Your task to perform on an android device: Search for the best rated 4k tvs on Walmart. Image 0: 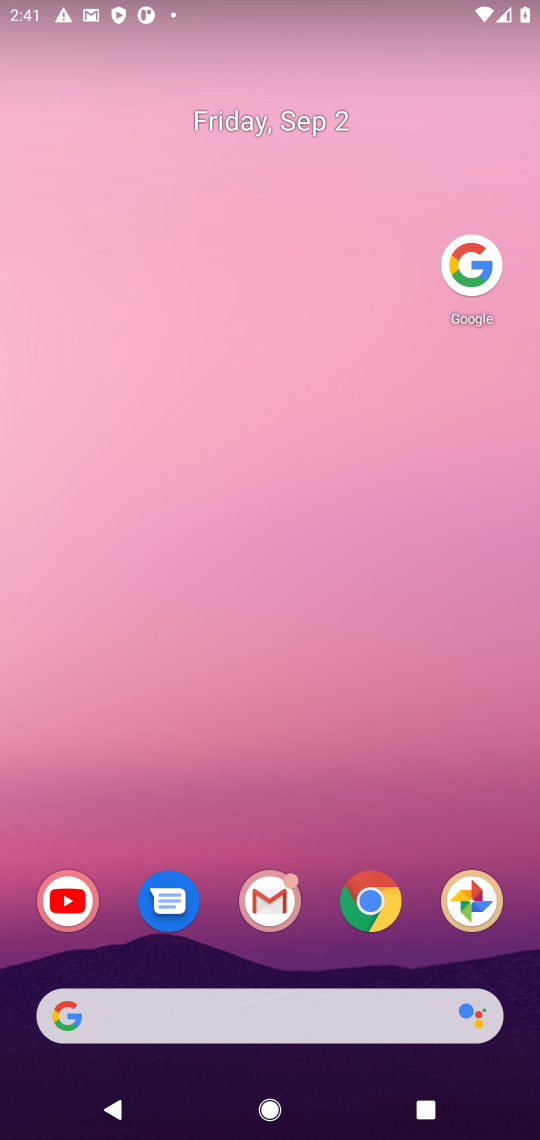
Step 0: drag from (195, 487) to (195, 340)
Your task to perform on an android device: Search for the best rated 4k tvs on Walmart. Image 1: 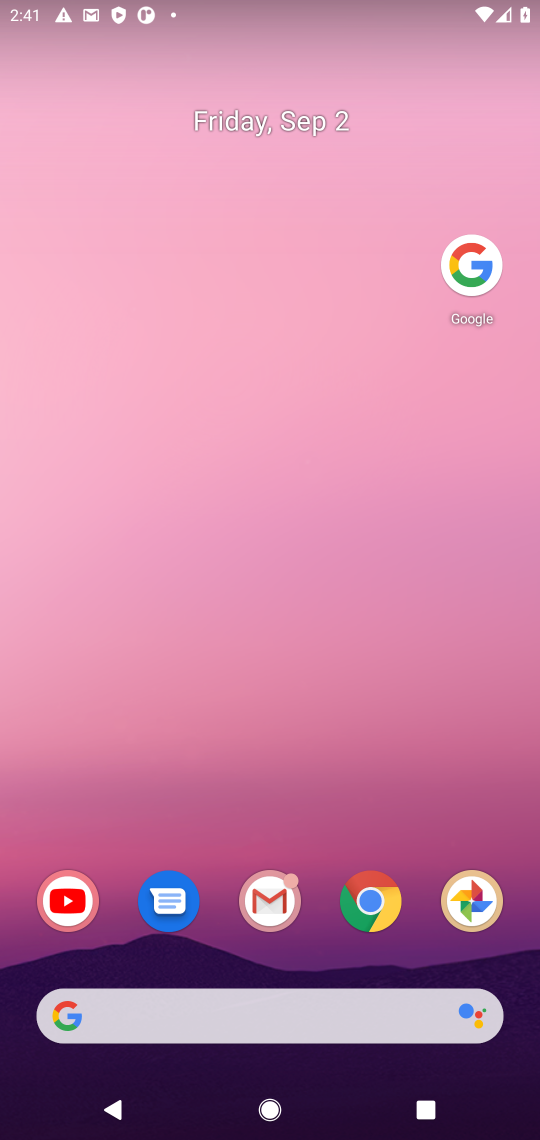
Step 1: click (481, 248)
Your task to perform on an android device: Search for the best rated 4k tvs on Walmart. Image 2: 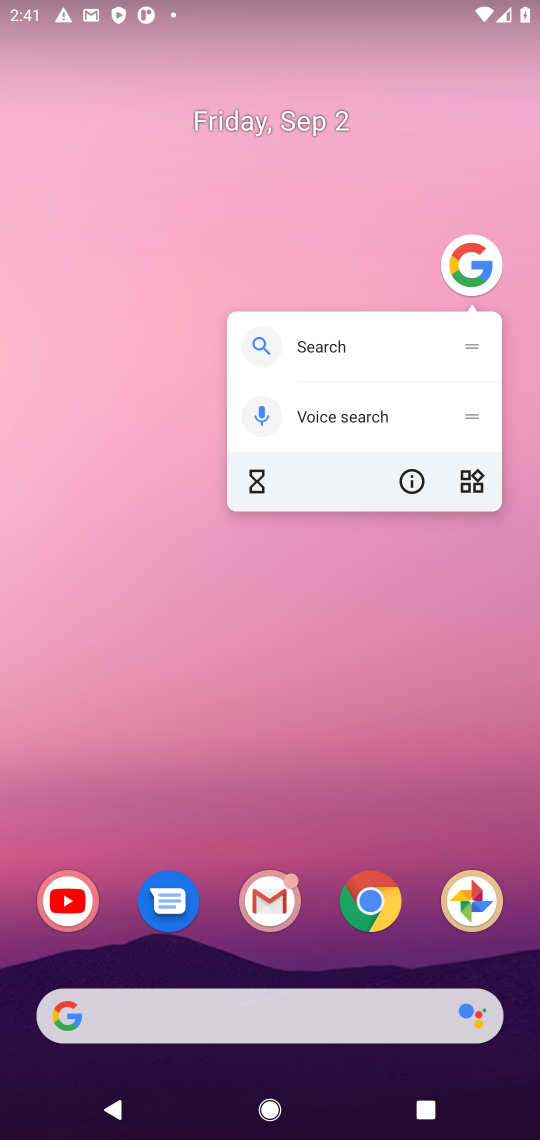
Step 2: click (469, 268)
Your task to perform on an android device: Search for the best rated 4k tvs on Walmart. Image 3: 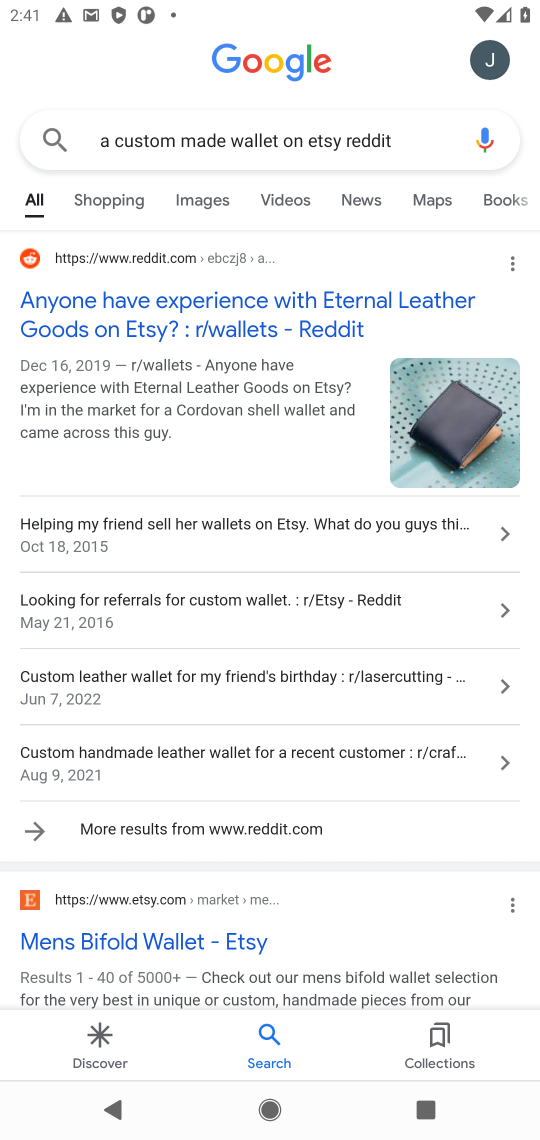
Step 3: click (435, 138)
Your task to perform on an android device: Search for the best rated 4k tvs on Walmart. Image 4: 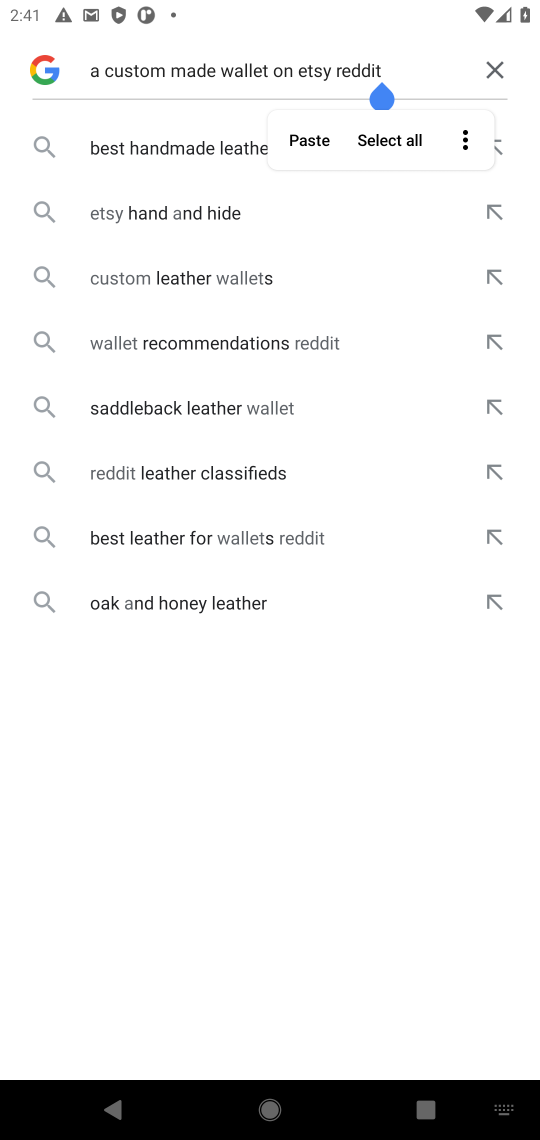
Step 4: click (483, 65)
Your task to perform on an android device: Search for the best rated 4k tvs on Walmart. Image 5: 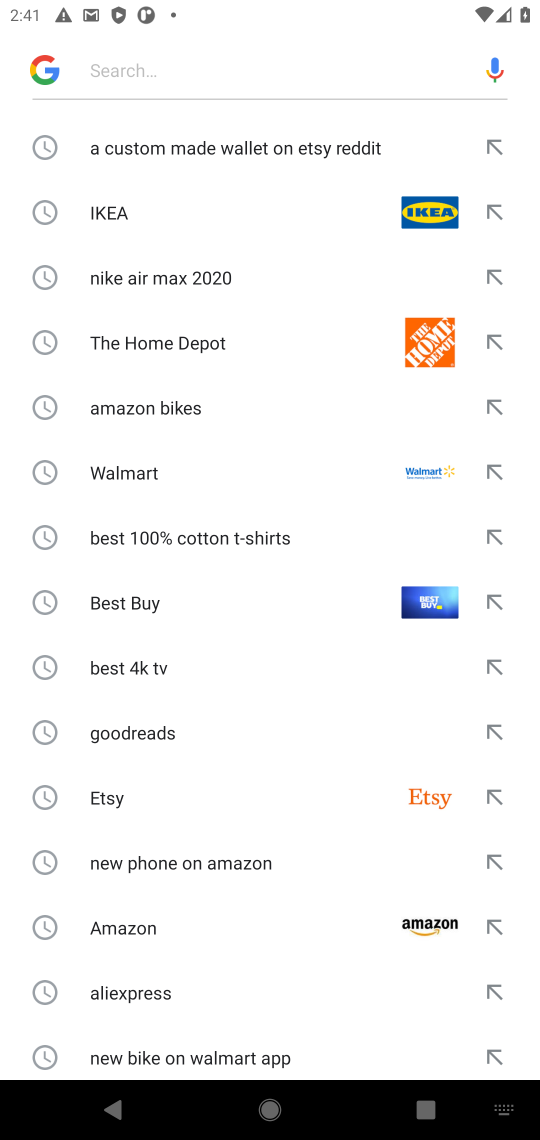
Step 5: click (174, 45)
Your task to perform on an android device: Search for the best rated 4k tvs on Walmart. Image 6: 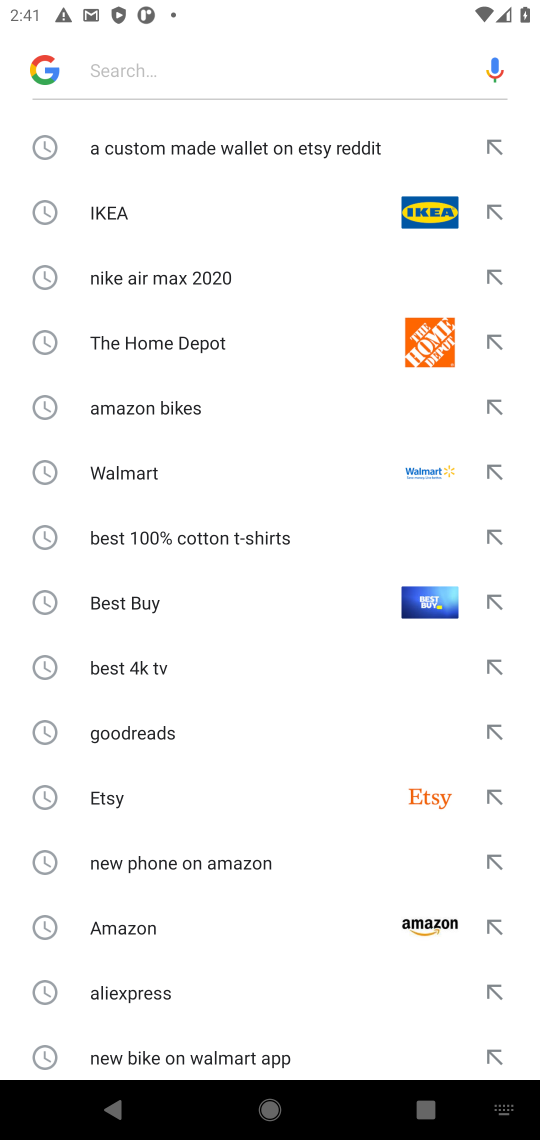
Step 6: type "the best rated 4k tvs on Walmart"
Your task to perform on an android device: Search for the best rated 4k tvs on Walmart. Image 7: 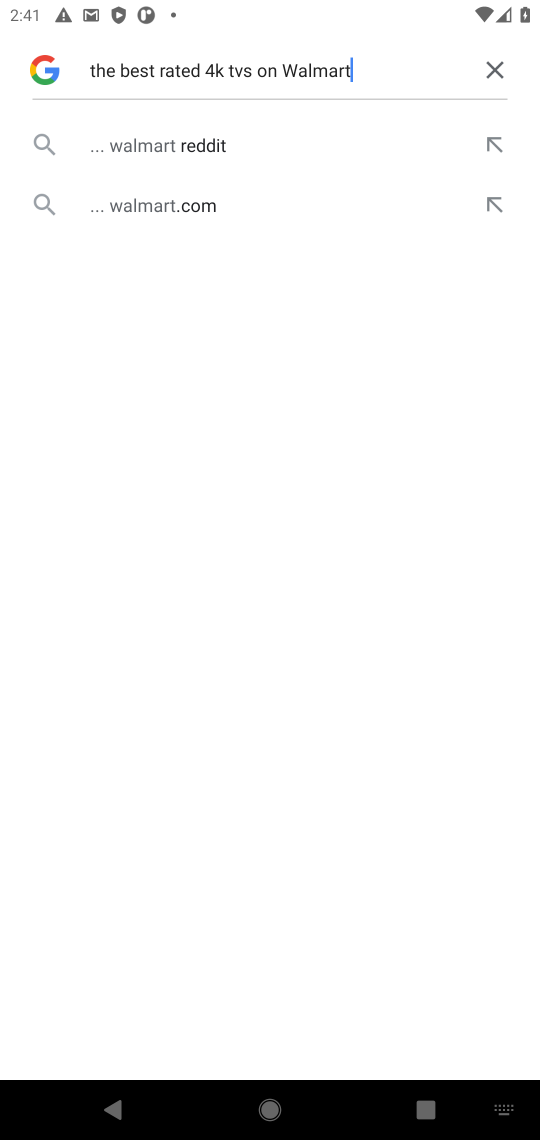
Step 7: click (219, 207)
Your task to perform on an android device: Search for the best rated 4k tvs on Walmart. Image 8: 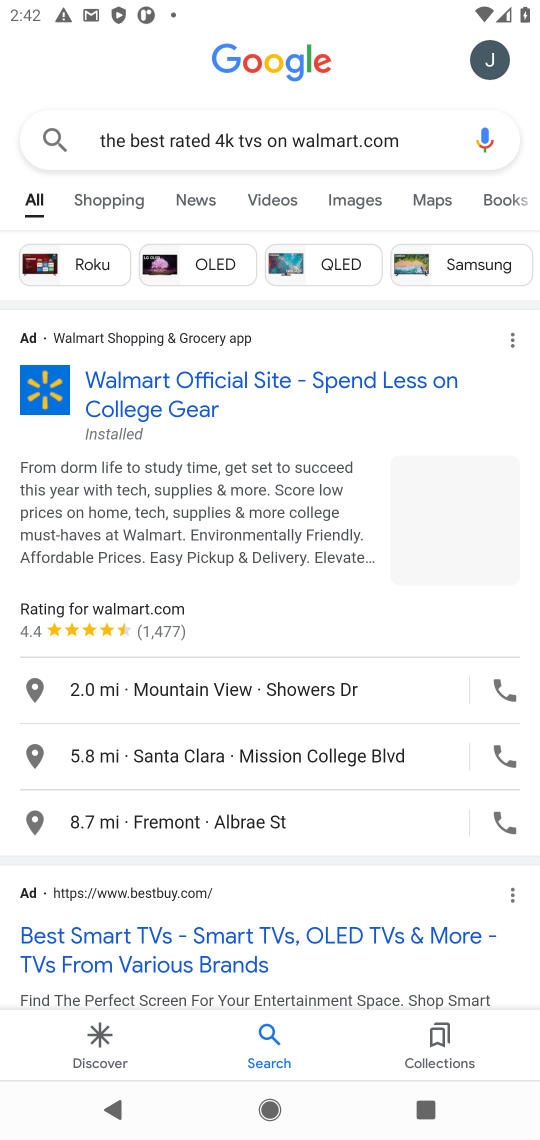
Step 8: click (201, 383)
Your task to perform on an android device: Search for the best rated 4k tvs on Walmart. Image 9: 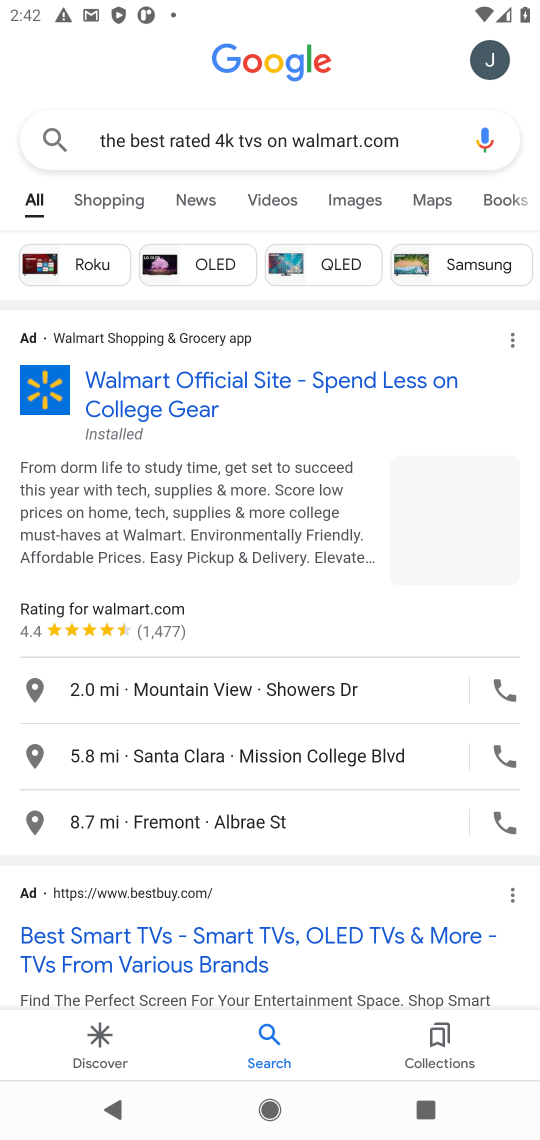
Step 9: click (170, 355)
Your task to perform on an android device: Search for the best rated 4k tvs on Walmart. Image 10: 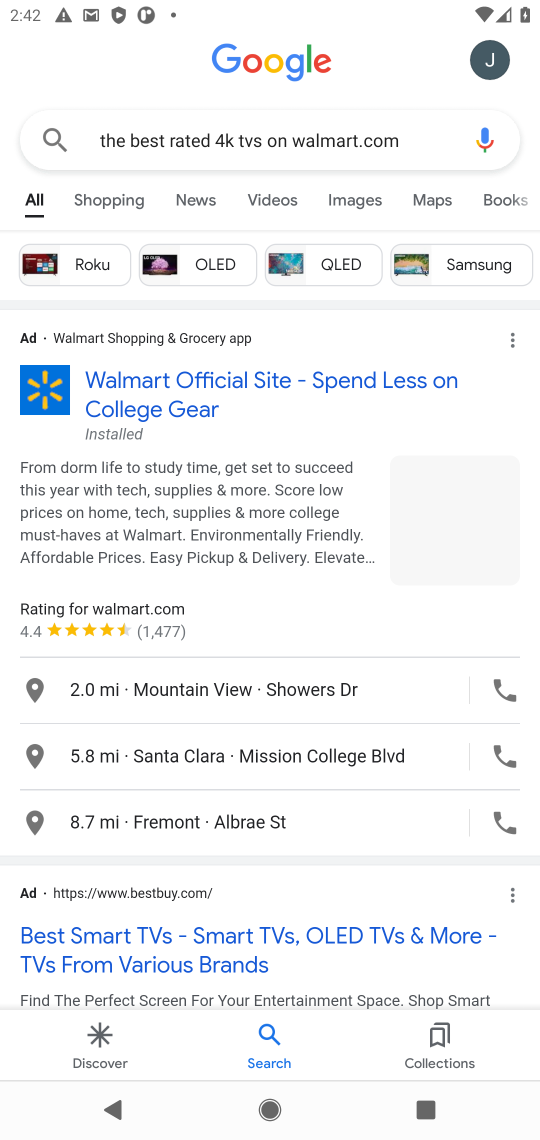
Step 10: click (164, 382)
Your task to perform on an android device: Search for the best rated 4k tvs on Walmart. Image 11: 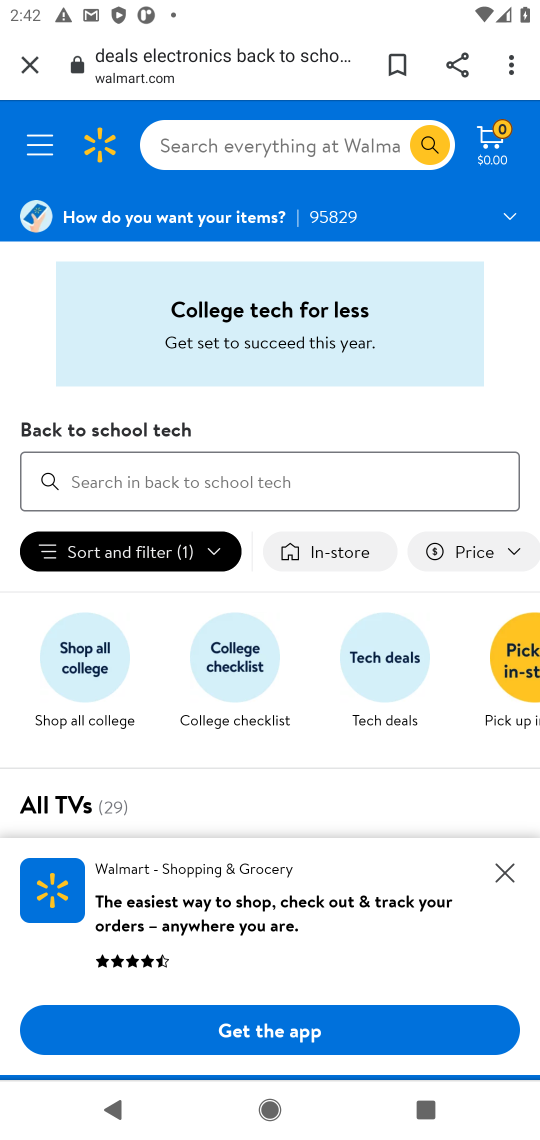
Step 11: click (161, 459)
Your task to perform on an android device: Search for the best rated 4k tvs on Walmart. Image 12: 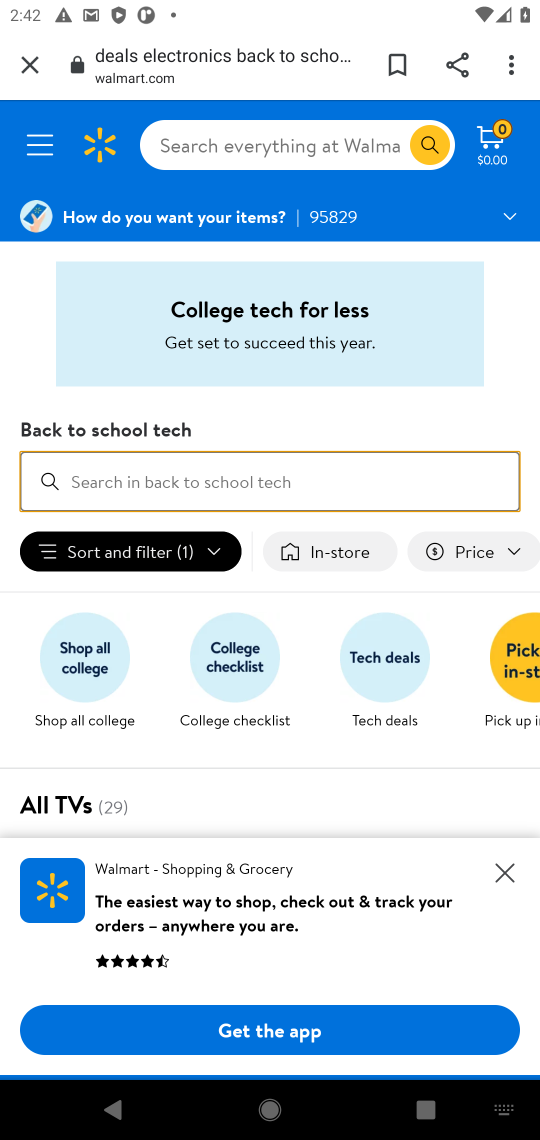
Step 12: type " 4k tvs on "
Your task to perform on an android device: Search for the best rated 4k tvs on Walmart. Image 13: 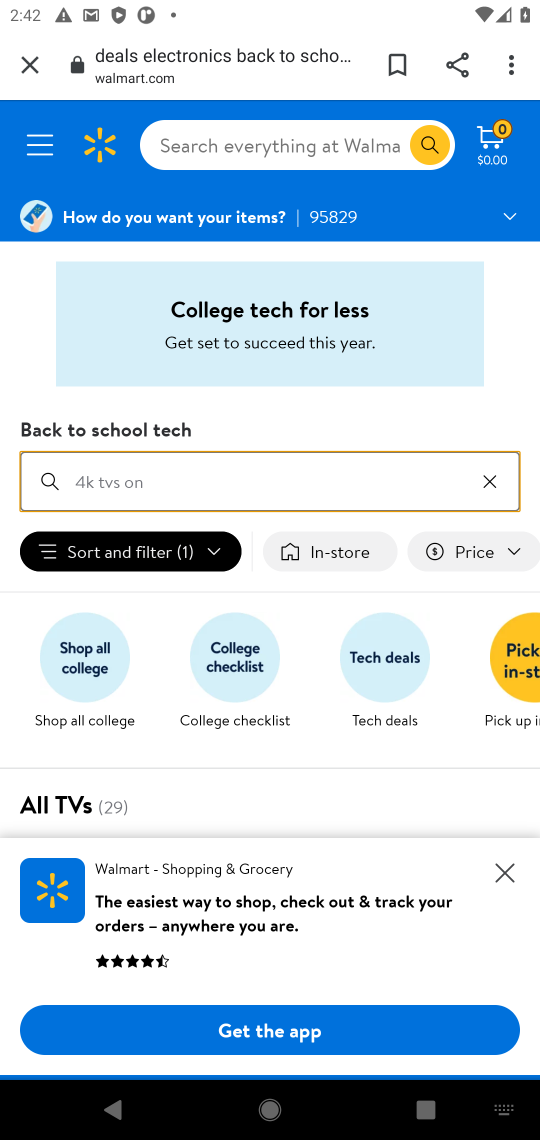
Step 13: click (356, 480)
Your task to perform on an android device: Search for the best rated 4k tvs on Walmart. Image 14: 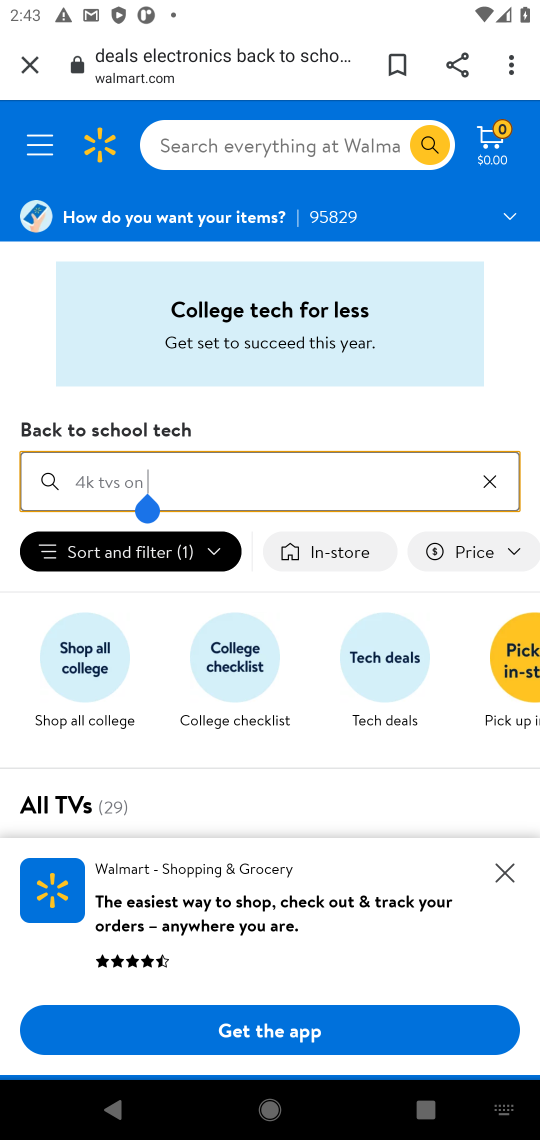
Step 14: click (498, 878)
Your task to perform on an android device: Search for the best rated 4k tvs on Walmart. Image 15: 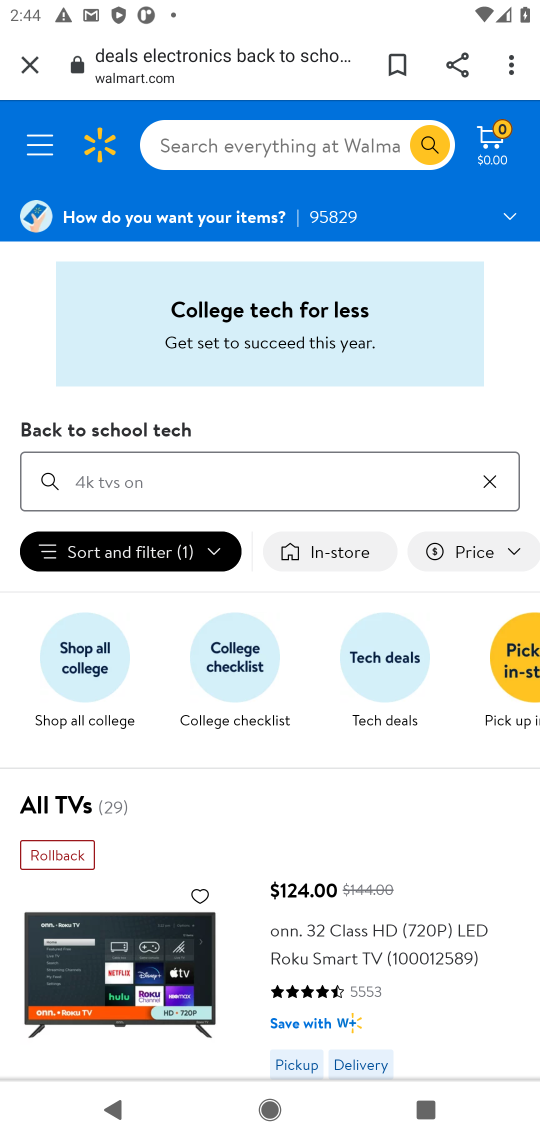
Step 15: task complete